Your task to perform on an android device: change your default location settings in chrome Image 0: 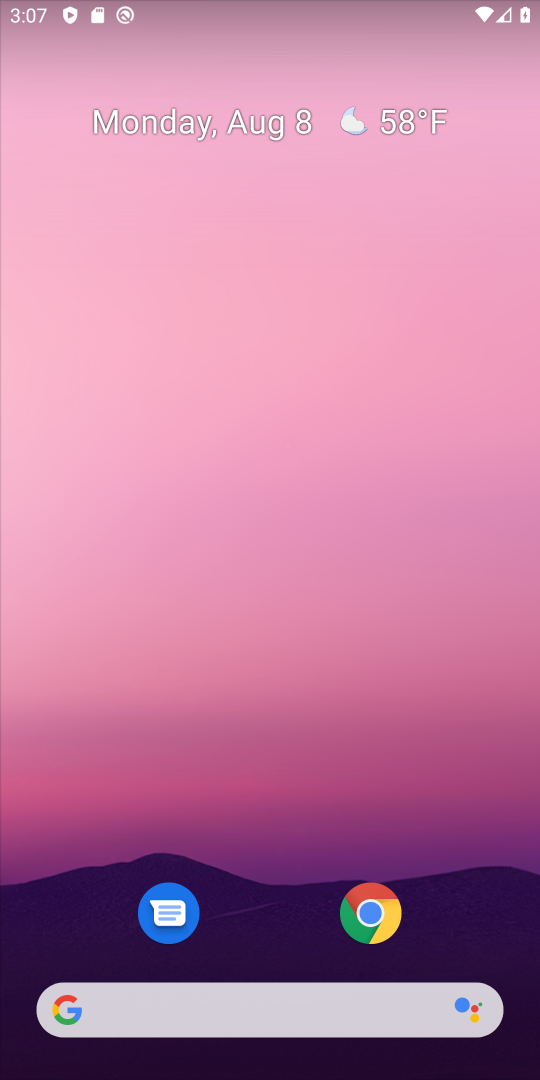
Step 0: press home button
Your task to perform on an android device: change your default location settings in chrome Image 1: 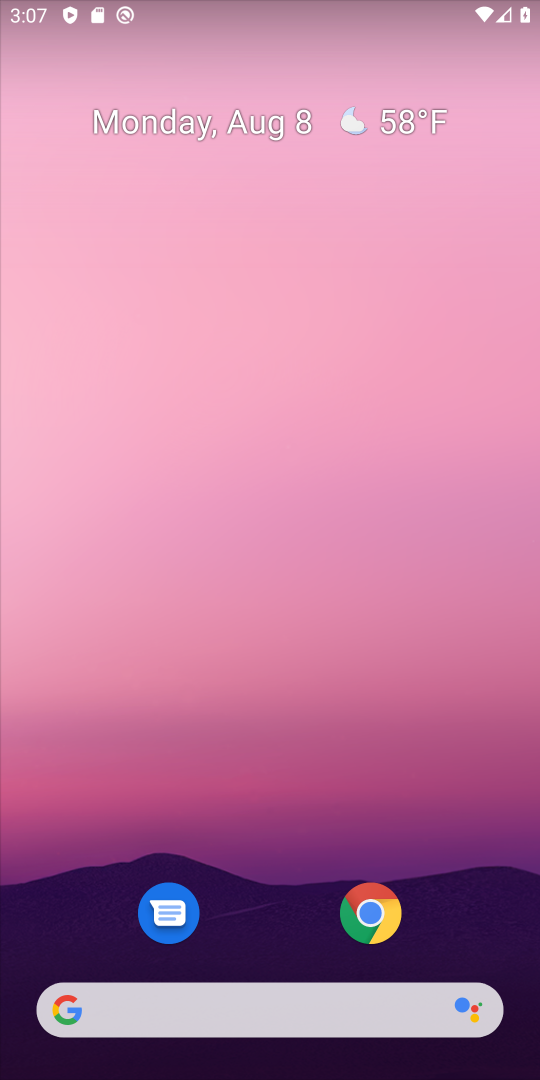
Step 1: drag from (272, 927) to (367, 108)
Your task to perform on an android device: change your default location settings in chrome Image 2: 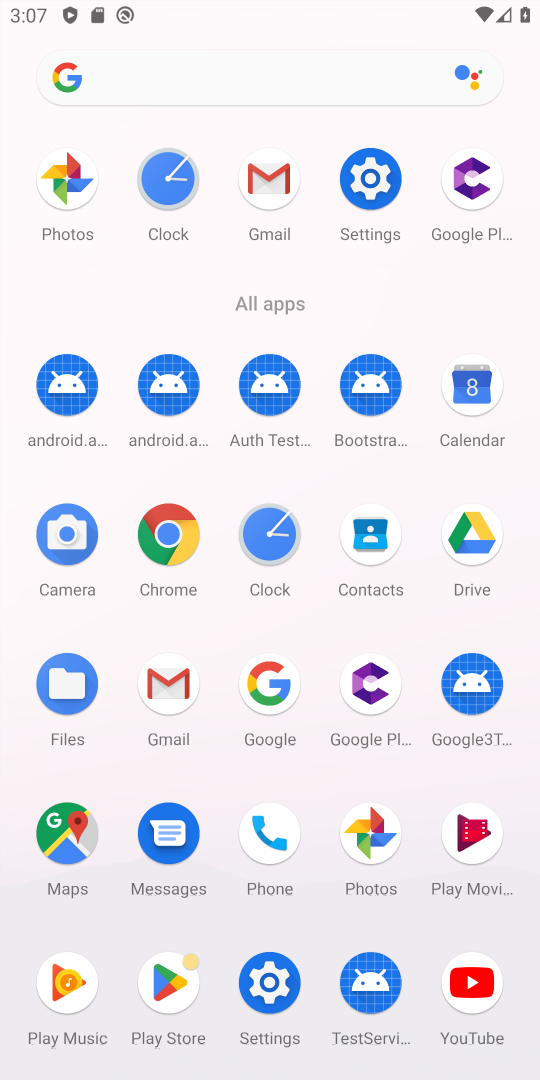
Step 2: click (168, 531)
Your task to perform on an android device: change your default location settings in chrome Image 3: 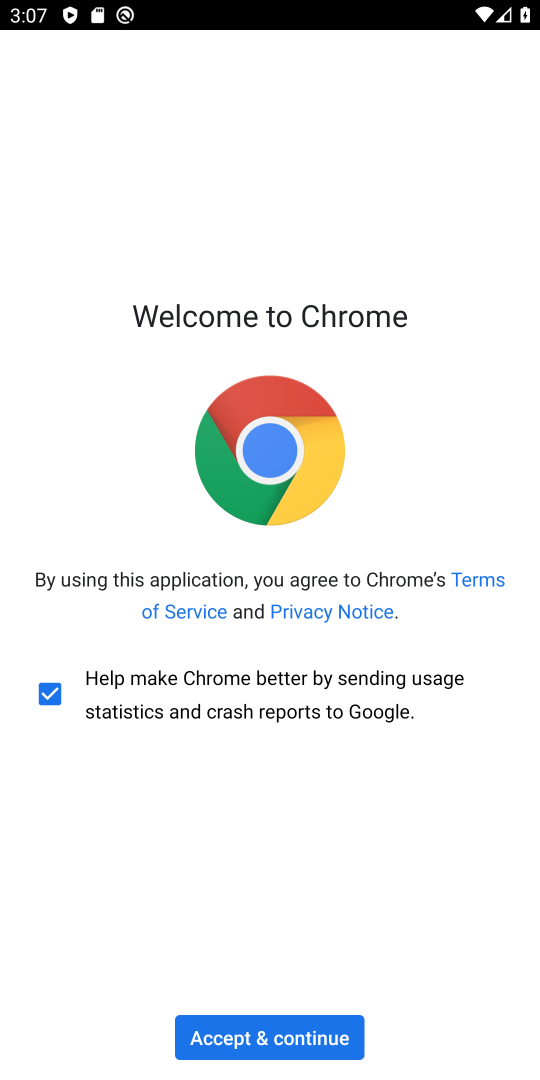
Step 3: click (279, 1037)
Your task to perform on an android device: change your default location settings in chrome Image 4: 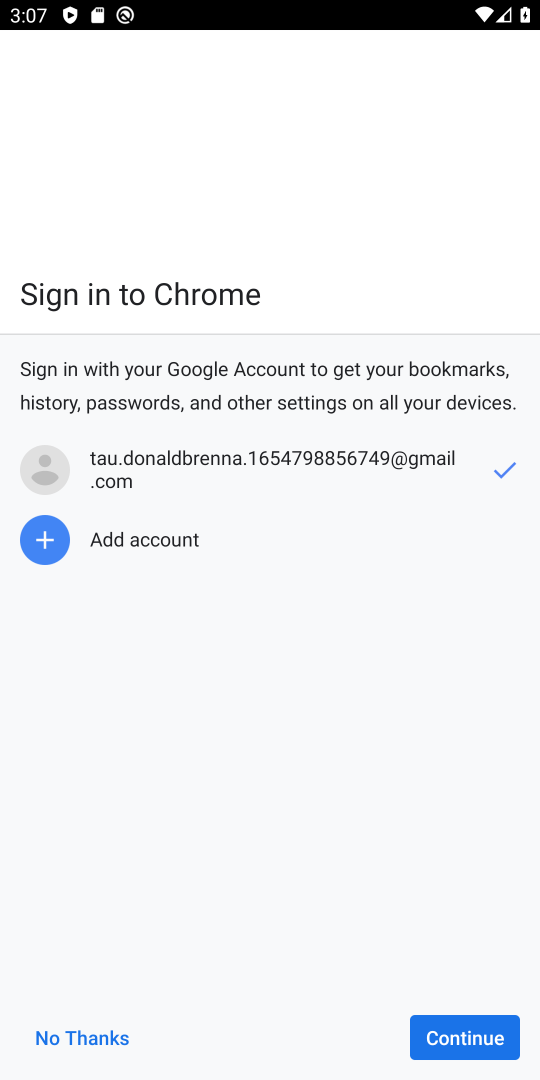
Step 4: click (471, 1029)
Your task to perform on an android device: change your default location settings in chrome Image 5: 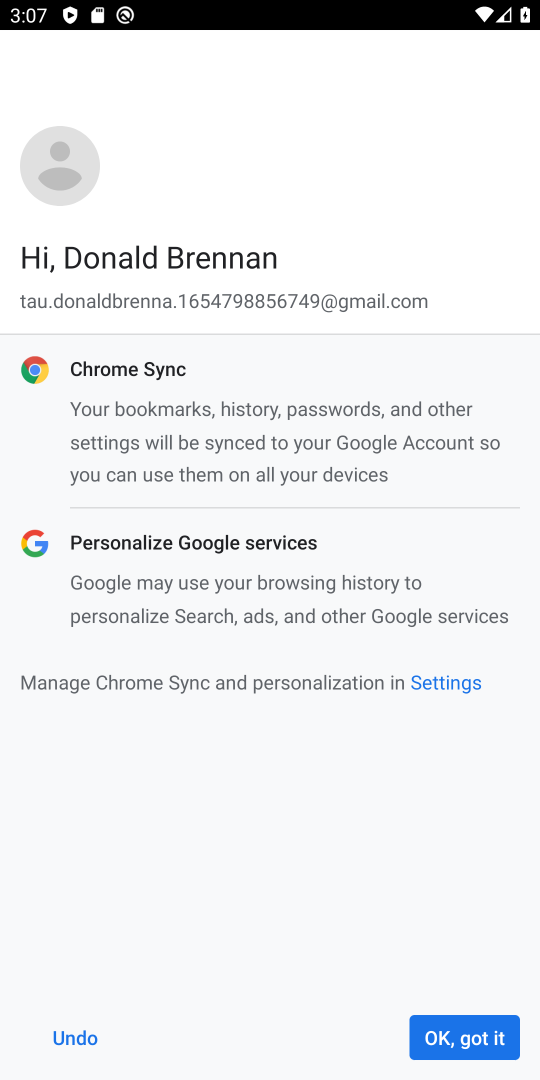
Step 5: click (455, 1048)
Your task to perform on an android device: change your default location settings in chrome Image 6: 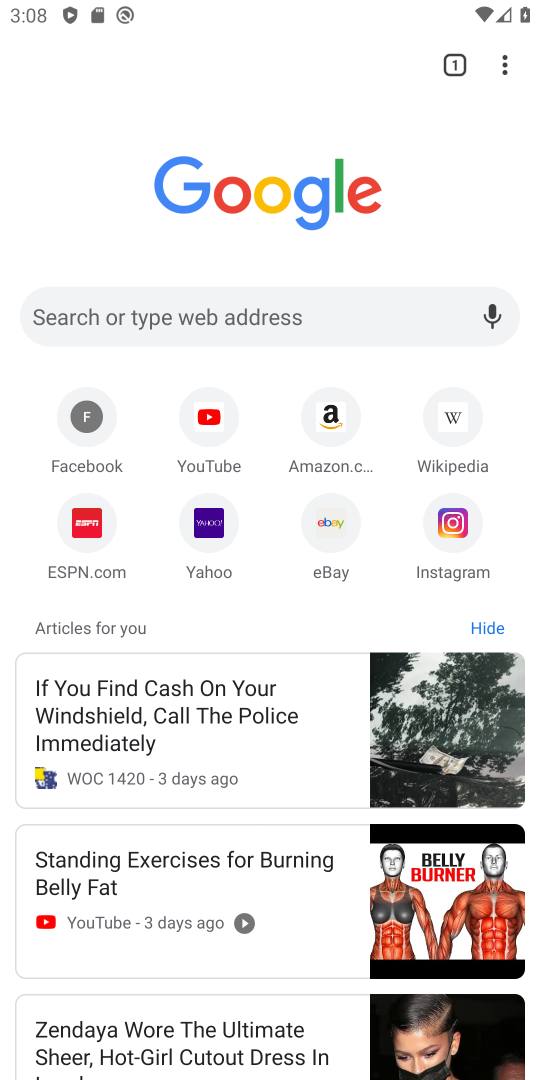
Step 6: click (503, 67)
Your task to perform on an android device: change your default location settings in chrome Image 7: 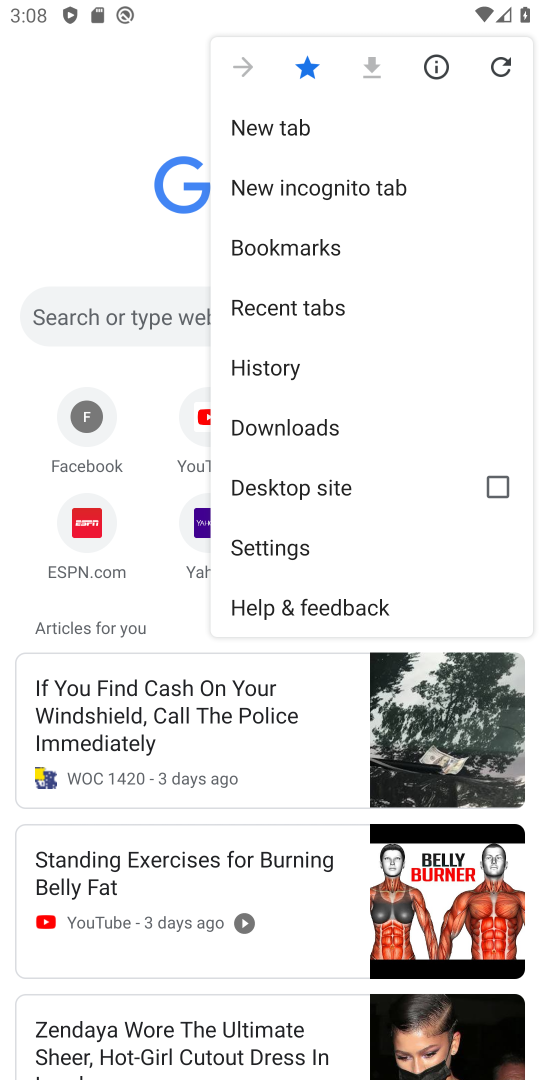
Step 7: click (292, 551)
Your task to perform on an android device: change your default location settings in chrome Image 8: 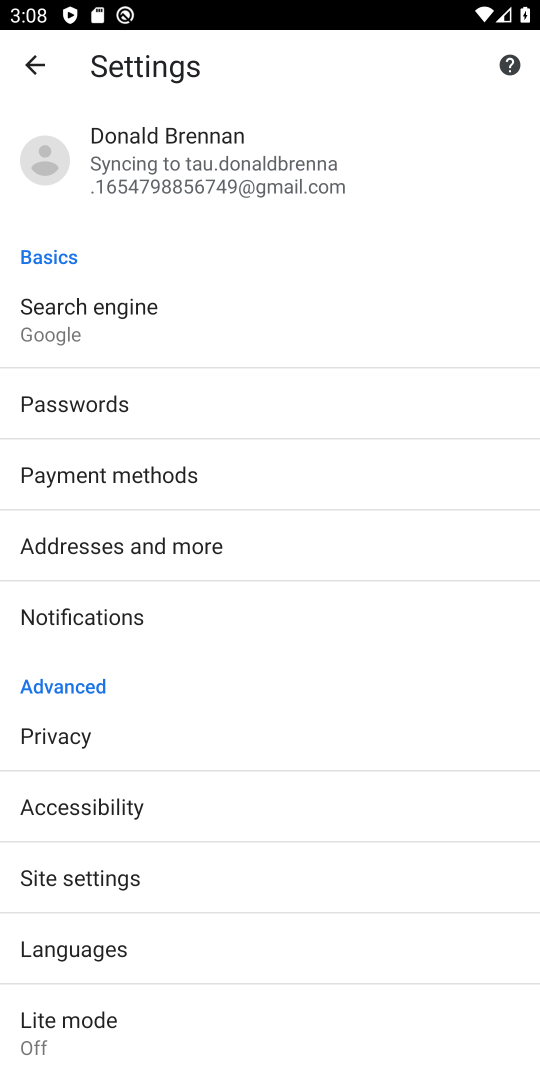
Step 8: click (259, 880)
Your task to perform on an android device: change your default location settings in chrome Image 9: 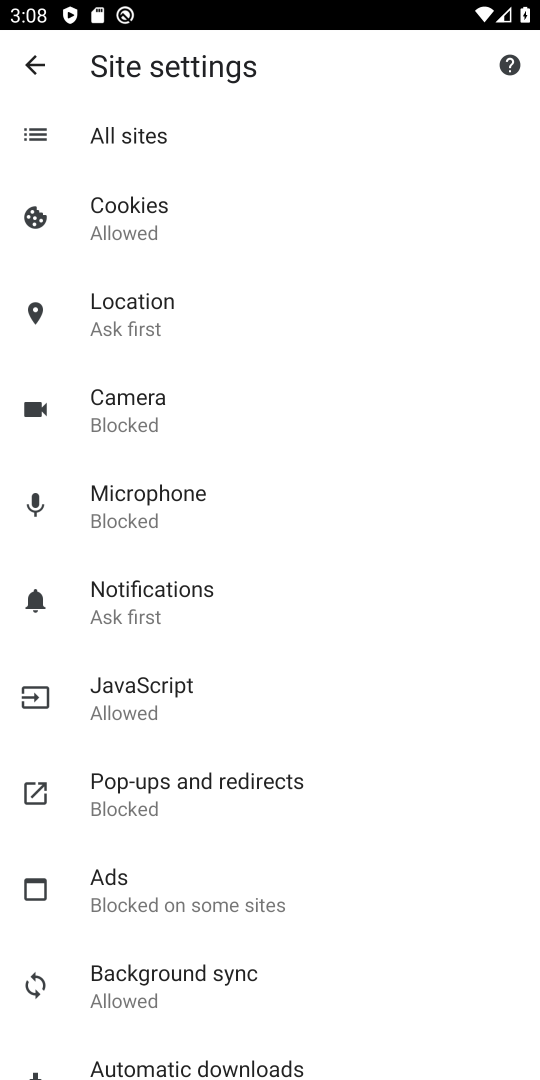
Step 9: click (152, 306)
Your task to perform on an android device: change your default location settings in chrome Image 10: 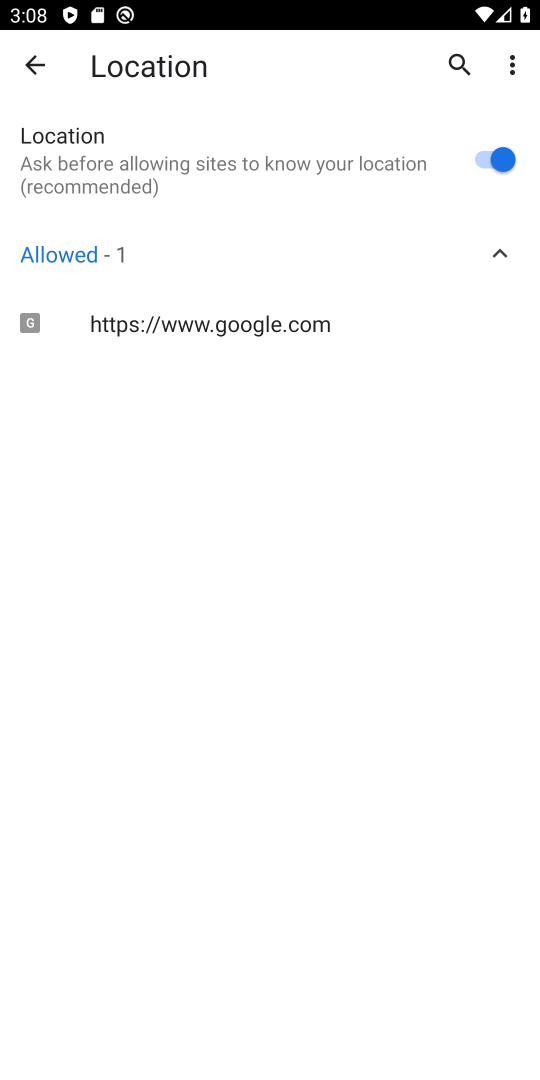
Step 10: task complete